Your task to perform on an android device: turn off translation in the chrome app Image 0: 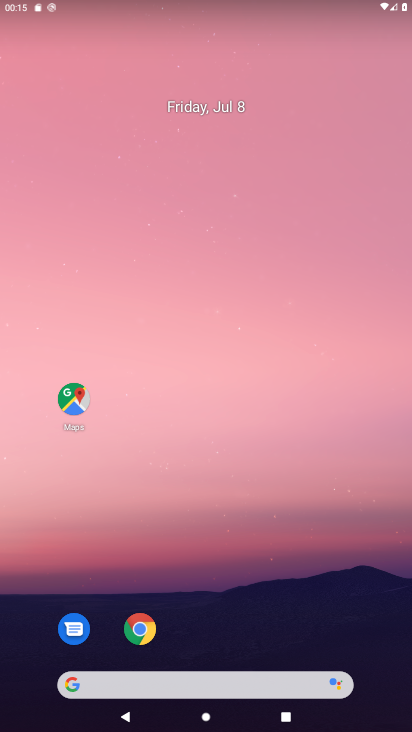
Step 0: click (145, 629)
Your task to perform on an android device: turn off translation in the chrome app Image 1: 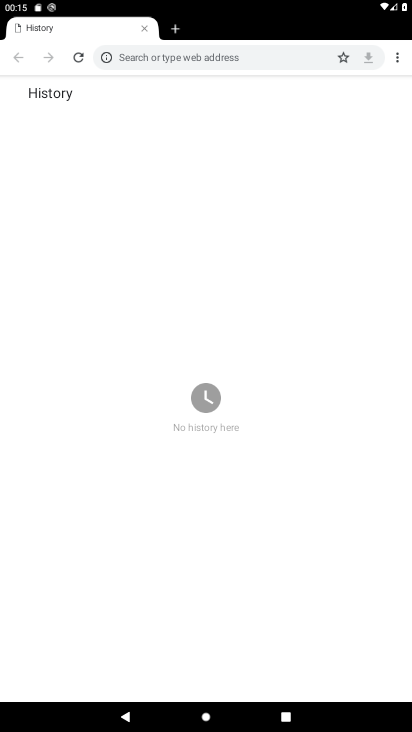
Step 1: click (394, 51)
Your task to perform on an android device: turn off translation in the chrome app Image 2: 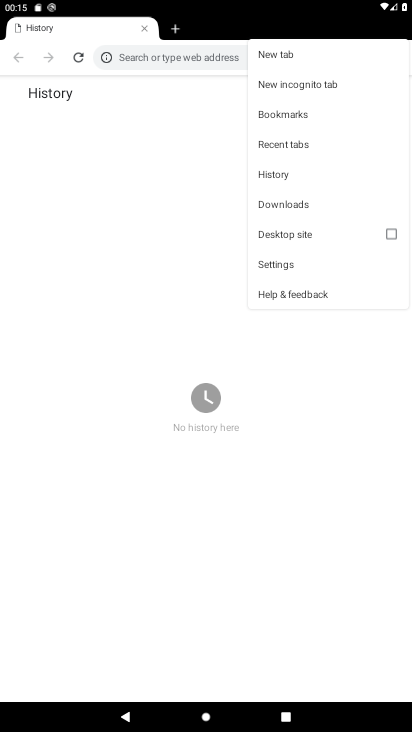
Step 2: click (286, 264)
Your task to perform on an android device: turn off translation in the chrome app Image 3: 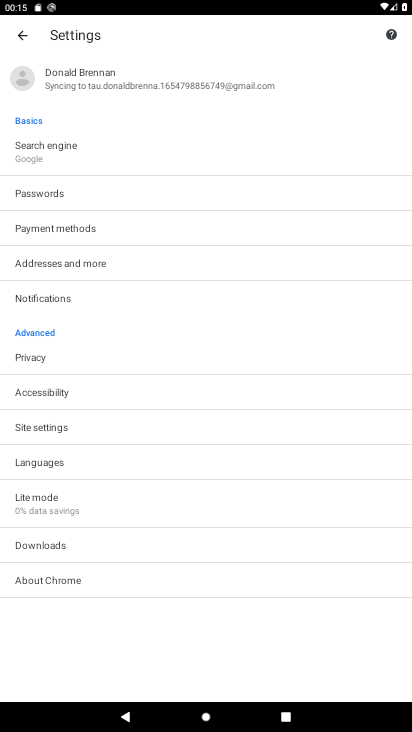
Step 3: click (89, 464)
Your task to perform on an android device: turn off translation in the chrome app Image 4: 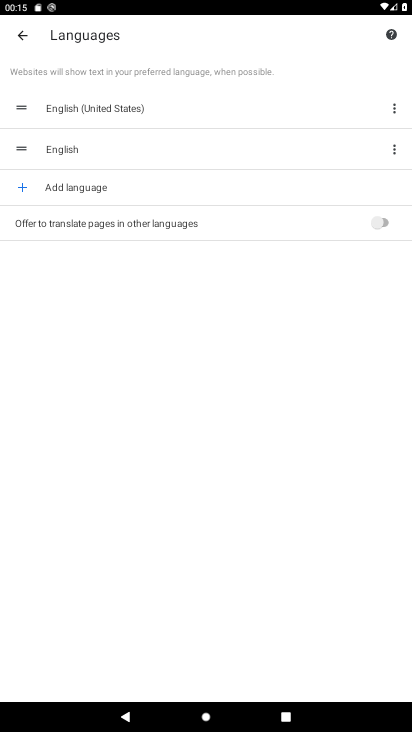
Step 4: task complete